Your task to perform on an android device: all mails in gmail Image 0: 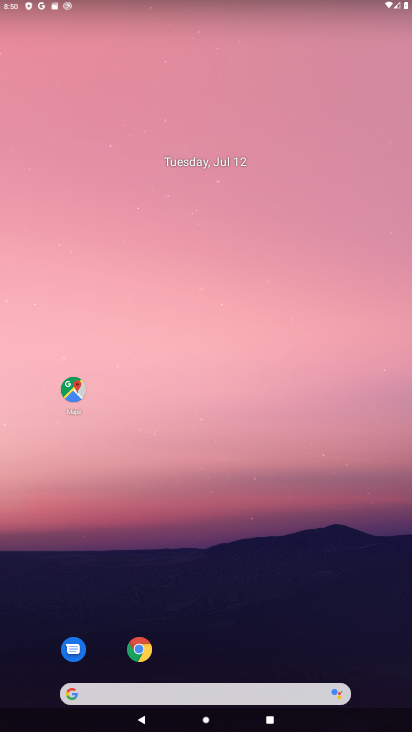
Step 0: drag from (244, 595) to (324, 153)
Your task to perform on an android device: all mails in gmail Image 1: 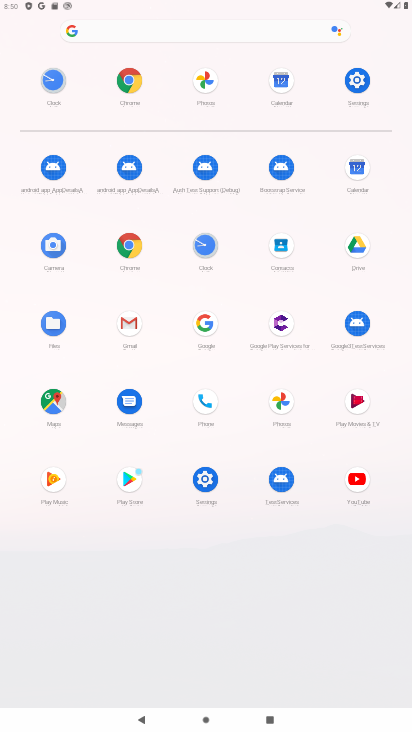
Step 1: click (131, 328)
Your task to perform on an android device: all mails in gmail Image 2: 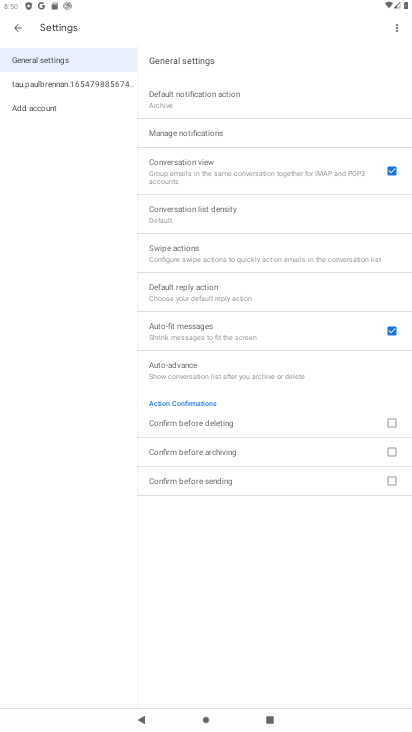
Step 2: click (19, 32)
Your task to perform on an android device: all mails in gmail Image 3: 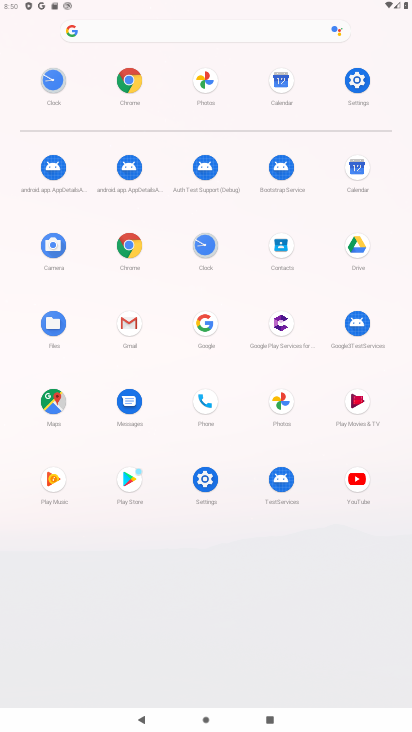
Step 3: click (132, 332)
Your task to perform on an android device: all mails in gmail Image 4: 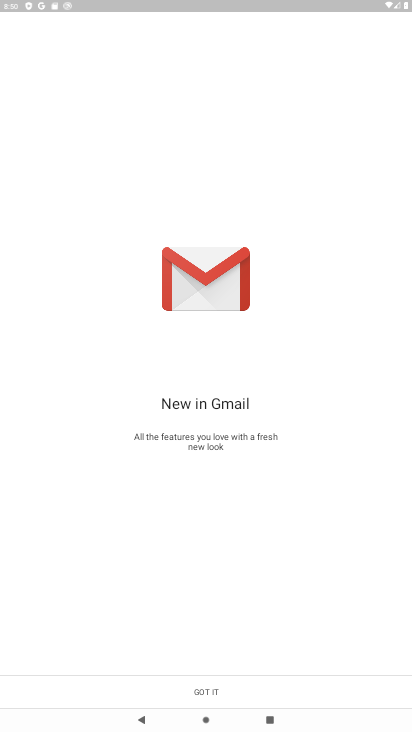
Step 4: click (183, 678)
Your task to perform on an android device: all mails in gmail Image 5: 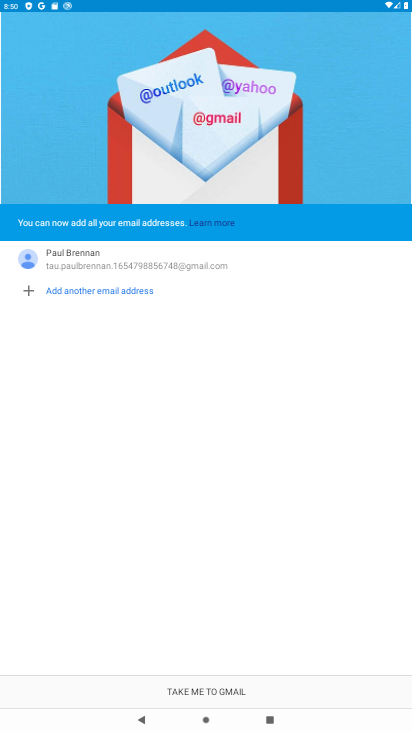
Step 5: click (183, 683)
Your task to perform on an android device: all mails in gmail Image 6: 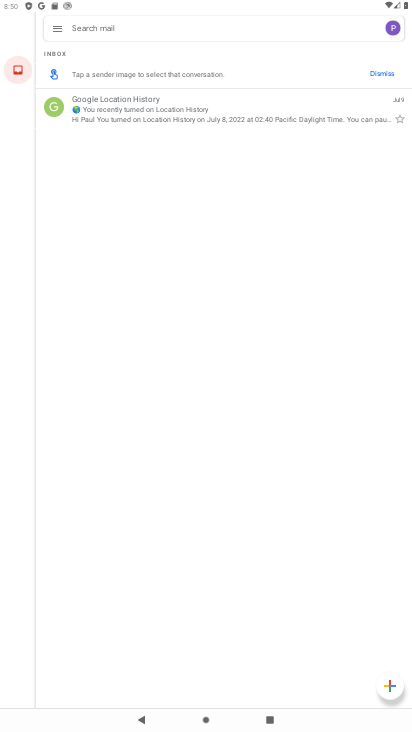
Step 6: task complete